Your task to perform on an android device: search for starred emails in the gmail app Image 0: 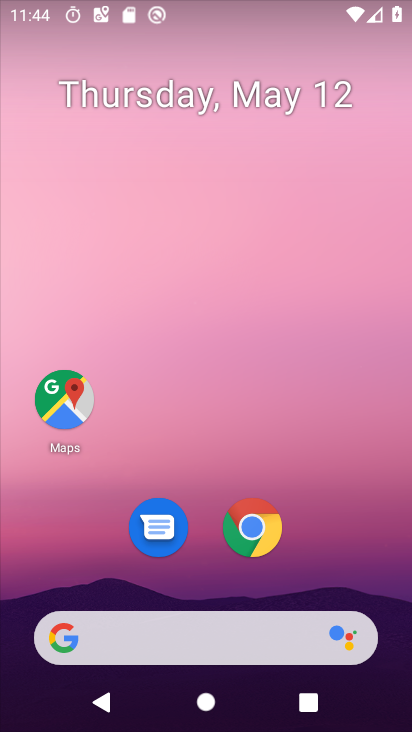
Step 0: drag from (301, 591) to (290, 180)
Your task to perform on an android device: search for starred emails in the gmail app Image 1: 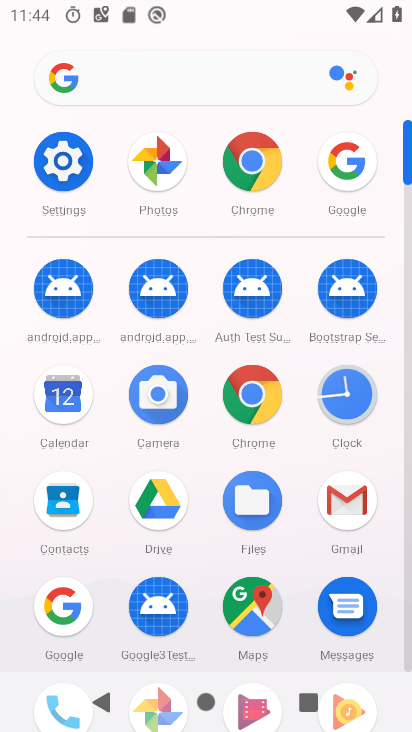
Step 1: click (343, 521)
Your task to perform on an android device: search for starred emails in the gmail app Image 2: 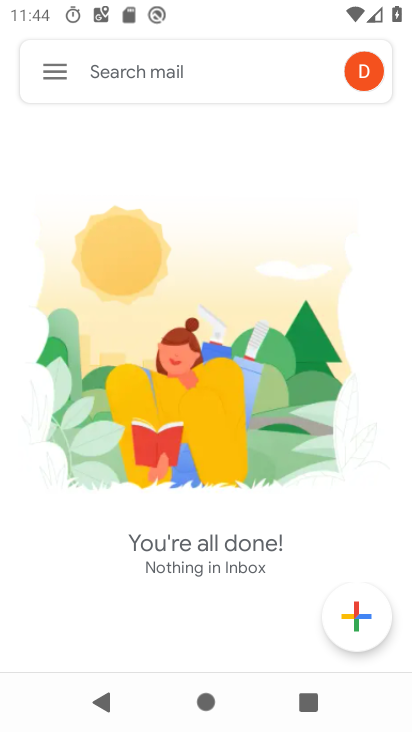
Step 2: click (54, 78)
Your task to perform on an android device: search for starred emails in the gmail app Image 3: 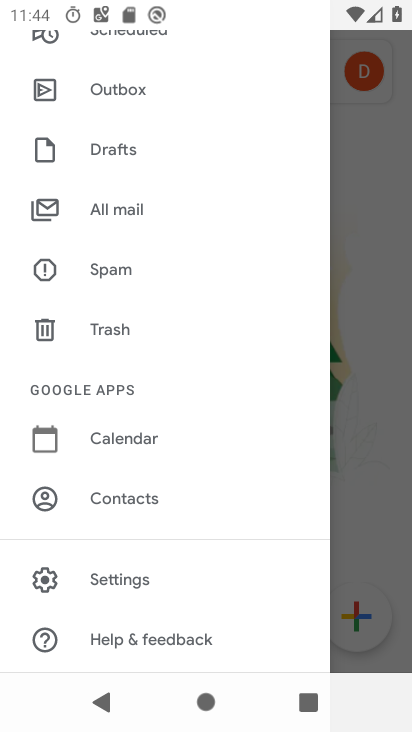
Step 3: drag from (137, 169) to (113, 520)
Your task to perform on an android device: search for starred emails in the gmail app Image 4: 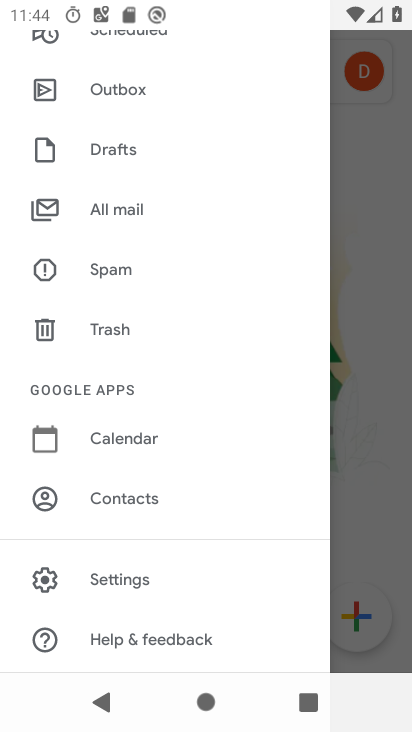
Step 4: drag from (123, 130) to (147, 465)
Your task to perform on an android device: search for starred emails in the gmail app Image 5: 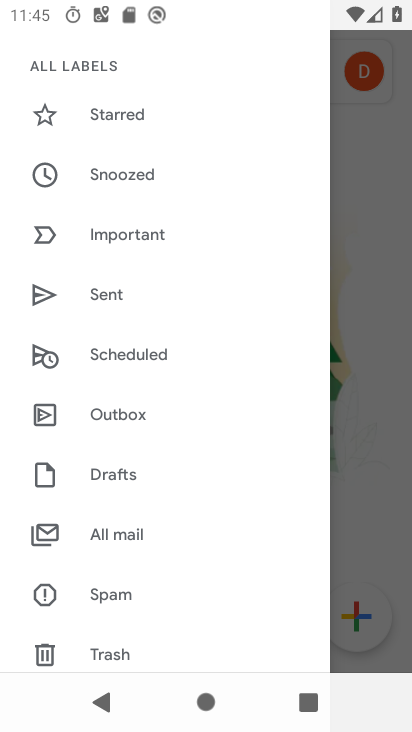
Step 5: click (129, 119)
Your task to perform on an android device: search for starred emails in the gmail app Image 6: 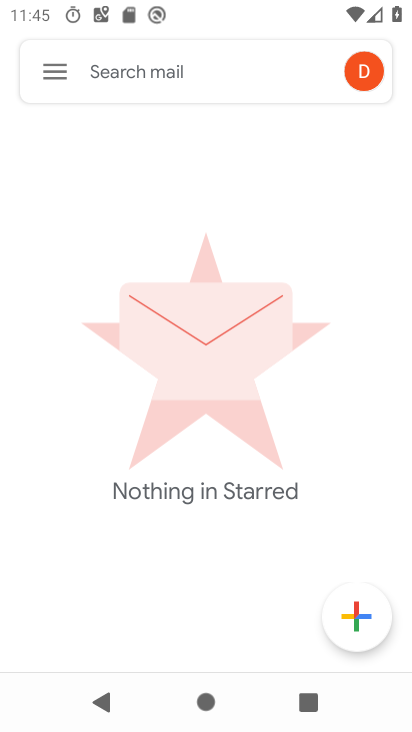
Step 6: task complete